Your task to perform on an android device: choose inbox layout in the gmail app Image 0: 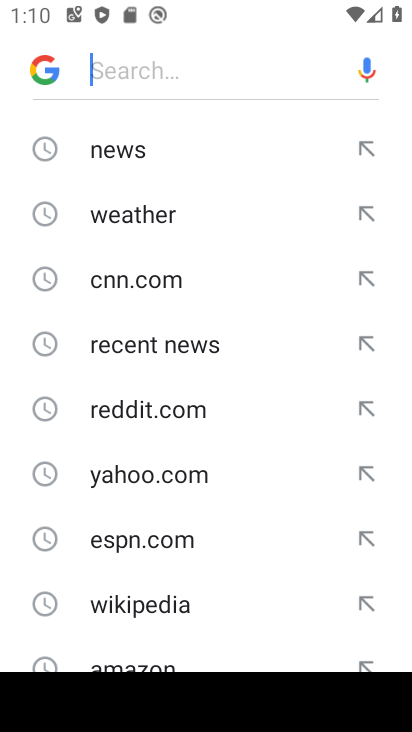
Step 0: press back button
Your task to perform on an android device: choose inbox layout in the gmail app Image 1: 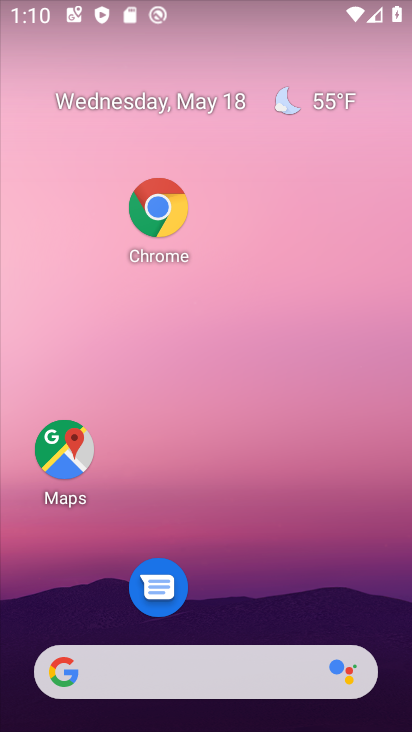
Step 1: drag from (237, 599) to (245, 142)
Your task to perform on an android device: choose inbox layout in the gmail app Image 2: 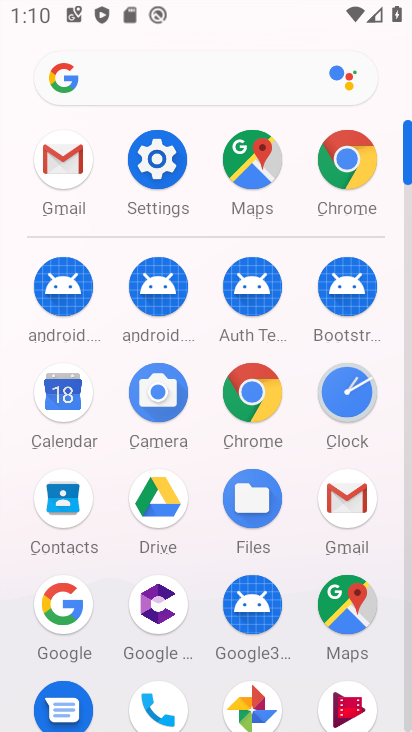
Step 2: click (348, 498)
Your task to perform on an android device: choose inbox layout in the gmail app Image 3: 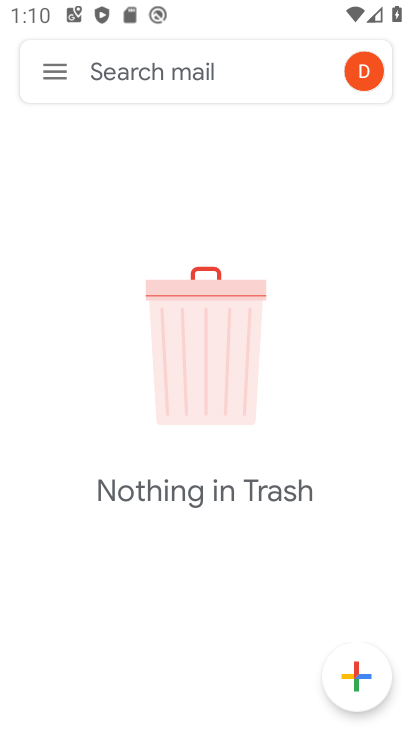
Step 3: click (58, 86)
Your task to perform on an android device: choose inbox layout in the gmail app Image 4: 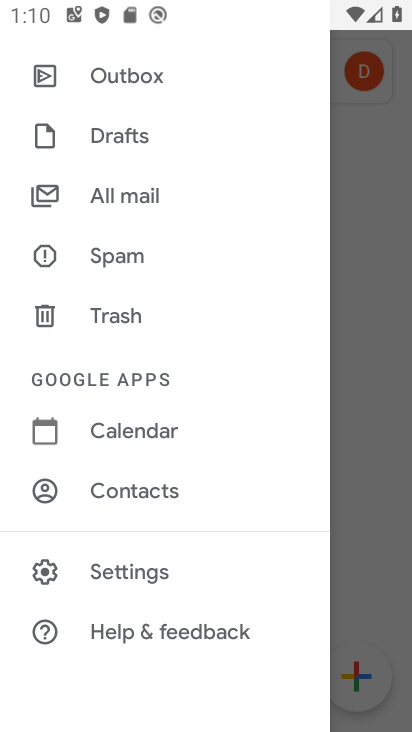
Step 4: click (144, 572)
Your task to perform on an android device: choose inbox layout in the gmail app Image 5: 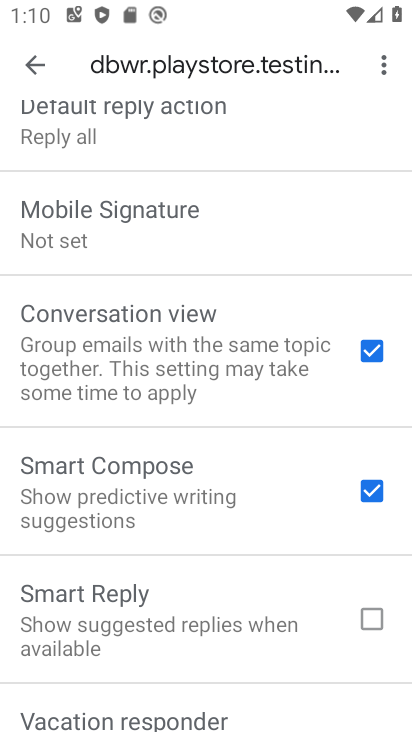
Step 5: drag from (196, 265) to (221, 606)
Your task to perform on an android device: choose inbox layout in the gmail app Image 6: 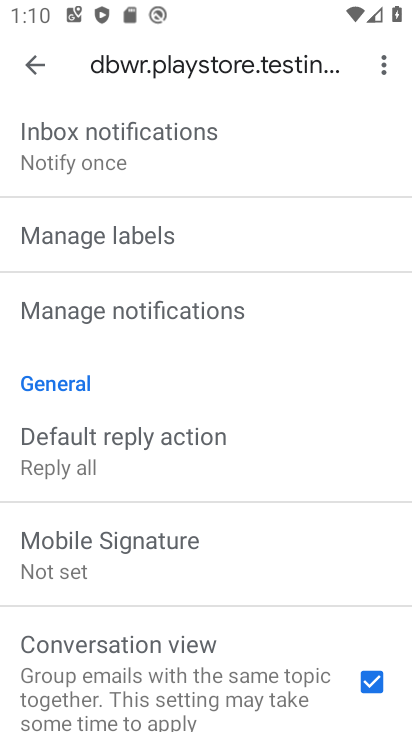
Step 6: drag from (188, 201) to (186, 429)
Your task to perform on an android device: choose inbox layout in the gmail app Image 7: 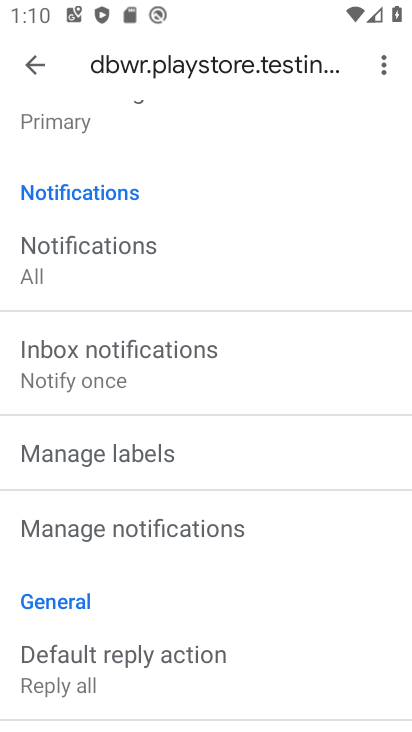
Step 7: drag from (174, 277) to (172, 507)
Your task to perform on an android device: choose inbox layout in the gmail app Image 8: 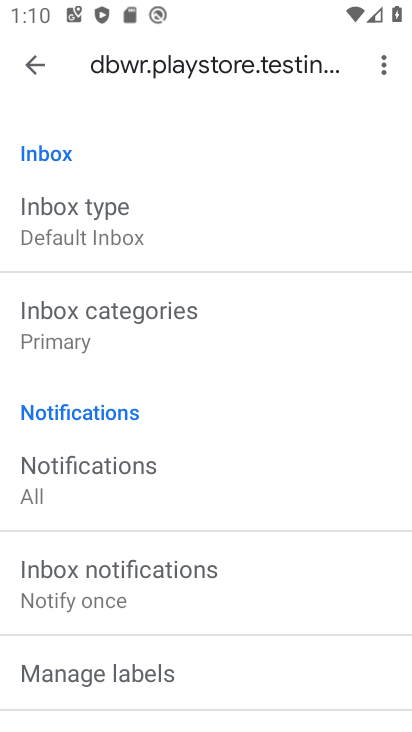
Step 8: click (89, 223)
Your task to perform on an android device: choose inbox layout in the gmail app Image 9: 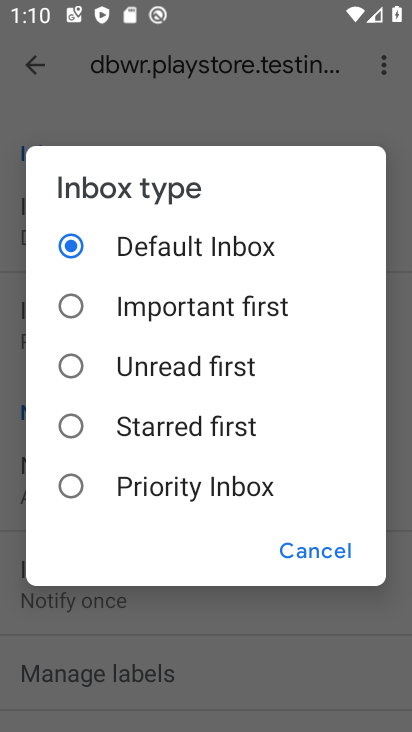
Step 9: click (69, 430)
Your task to perform on an android device: choose inbox layout in the gmail app Image 10: 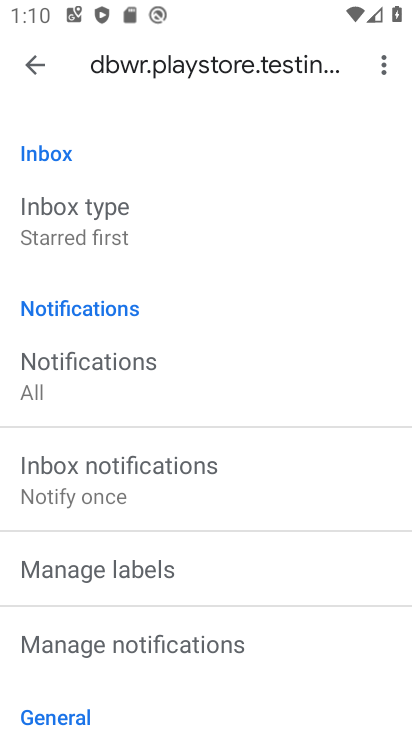
Step 10: task complete